Your task to perform on an android device: Search for a runner rug on Crate & Barrel Image 0: 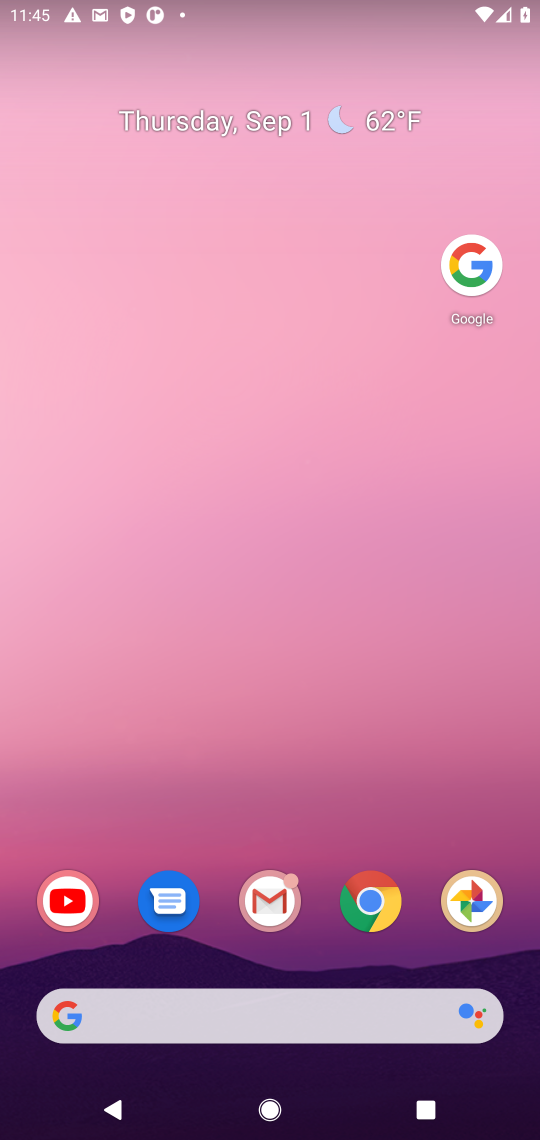
Step 0: click (462, 246)
Your task to perform on an android device: Search for a runner rug on Crate & Barrel Image 1: 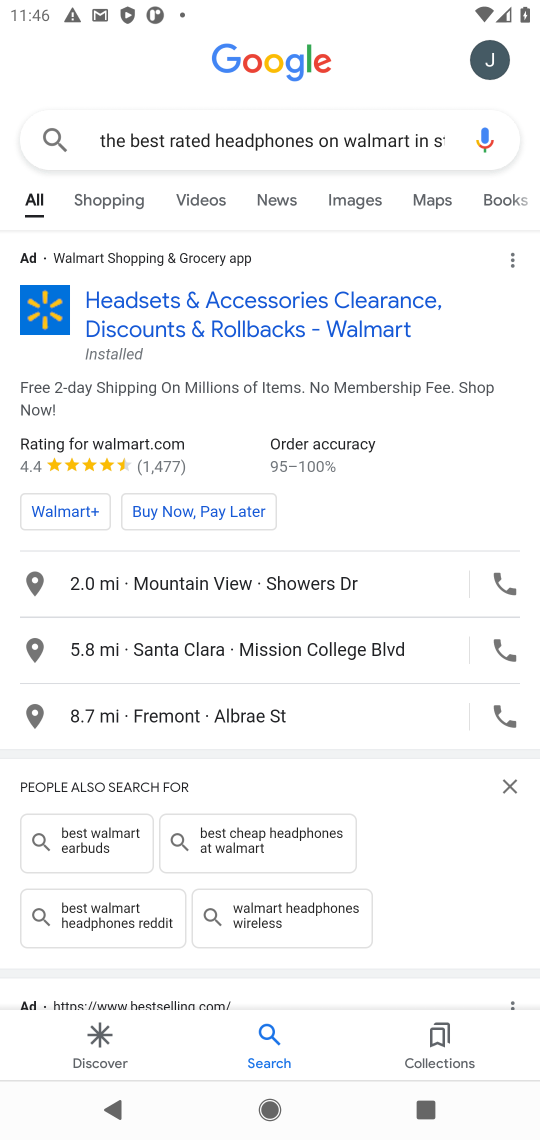
Step 1: click (395, 128)
Your task to perform on an android device: Search for a runner rug on Crate & Barrel Image 2: 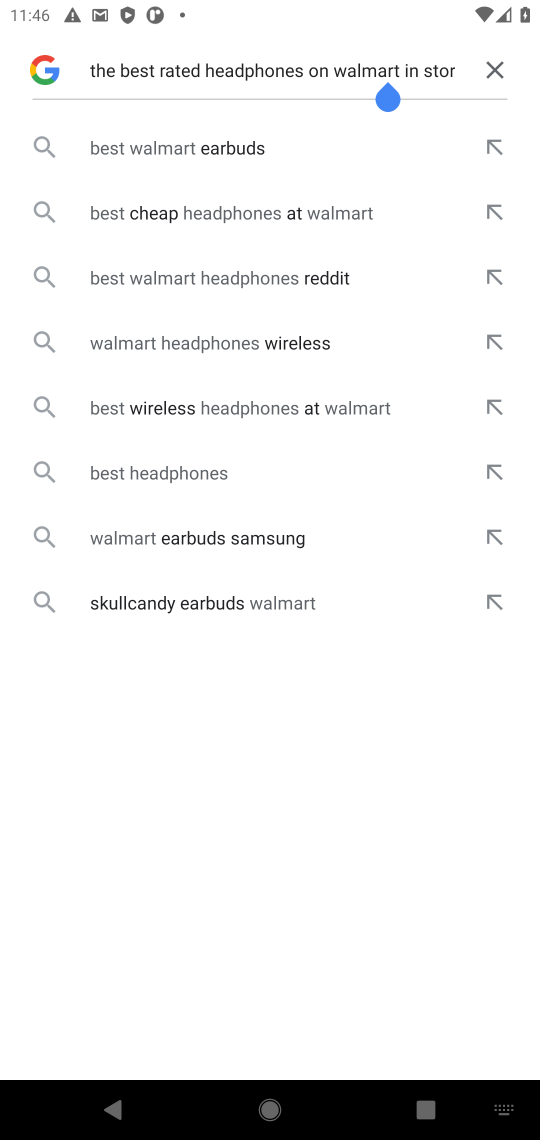
Step 2: click (495, 73)
Your task to perform on an android device: Search for a runner rug on Crate & Barrel Image 3: 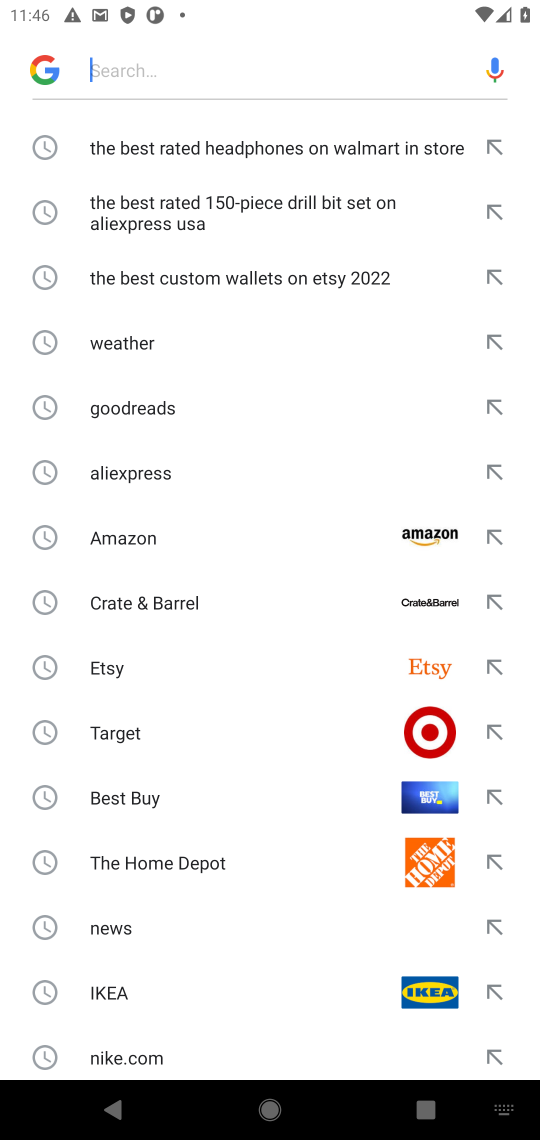
Step 3: click (358, 64)
Your task to perform on an android device: Search for a runner rug on Crate & Barrel Image 4: 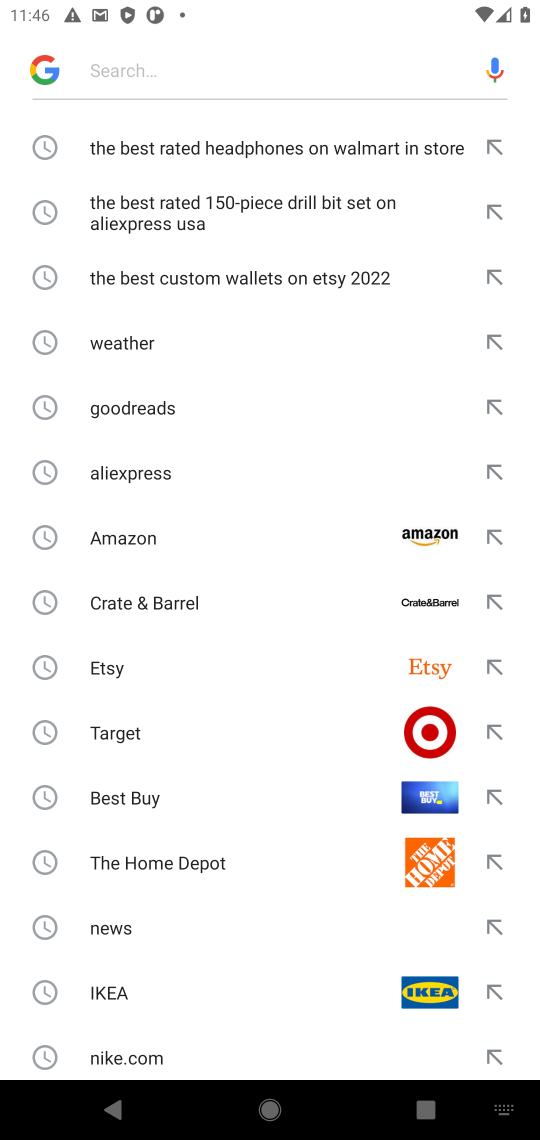
Step 4: type " a runner rug on Crate & Barrel "
Your task to perform on an android device: Search for a runner rug on Crate & Barrel Image 5: 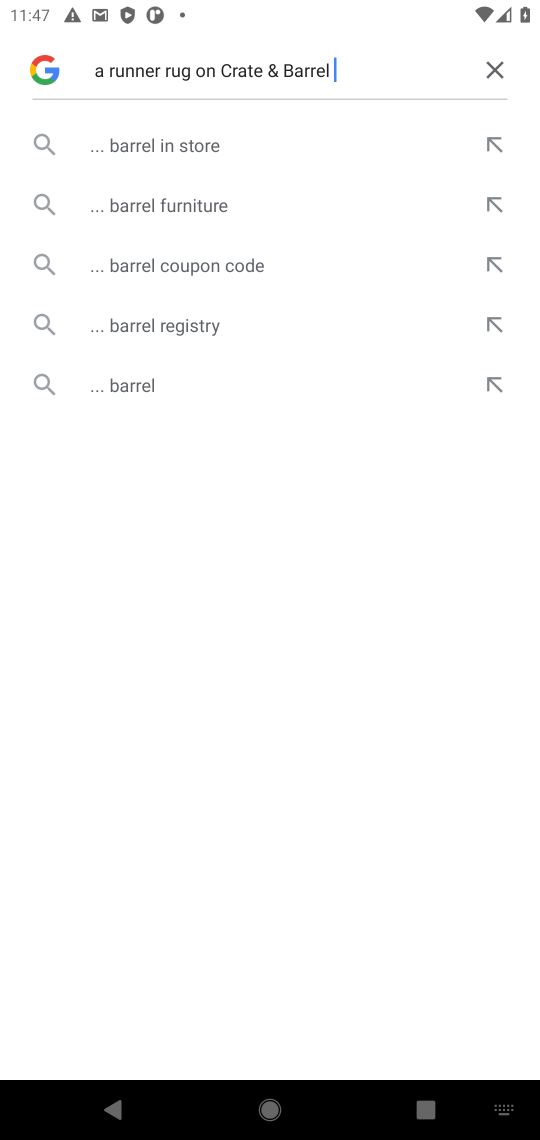
Step 5: click (227, 117)
Your task to perform on an android device: Search for a runner rug on Crate & Barrel Image 6: 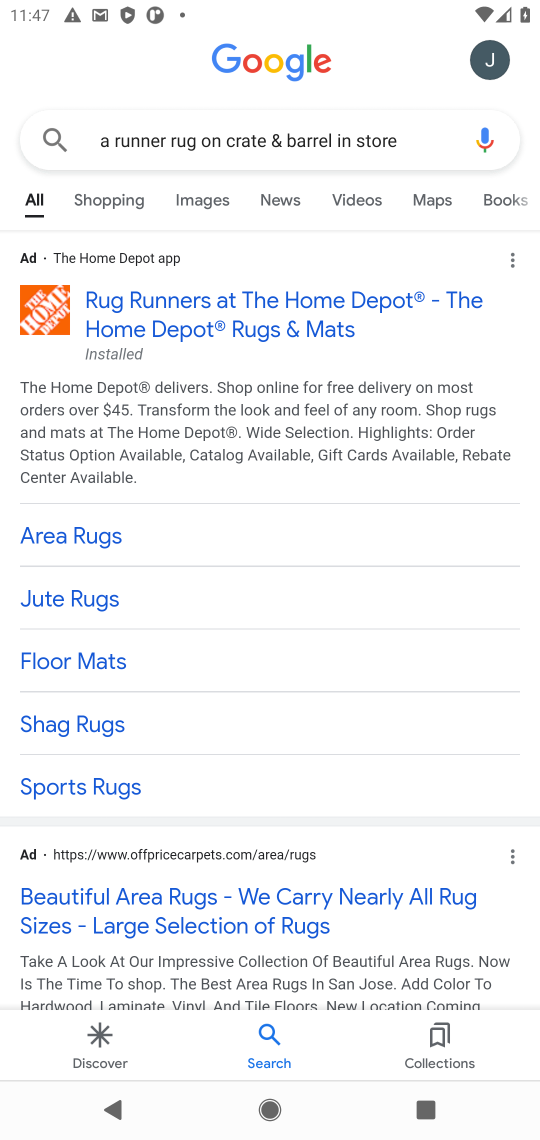
Step 6: click (218, 300)
Your task to perform on an android device: Search for a runner rug on Crate & Barrel Image 7: 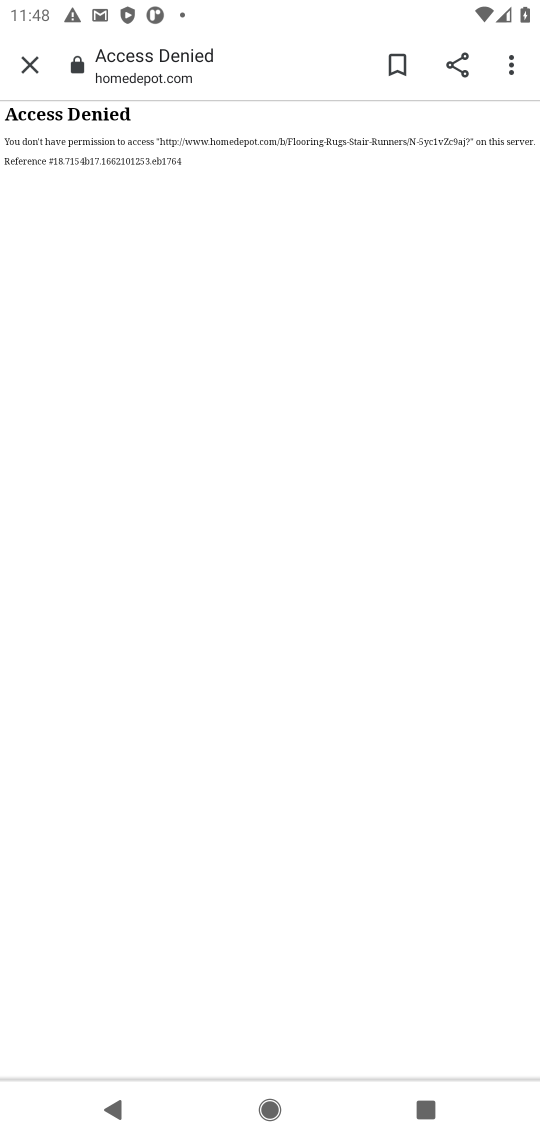
Step 7: task complete